Your task to perform on an android device: check google app version Image 0: 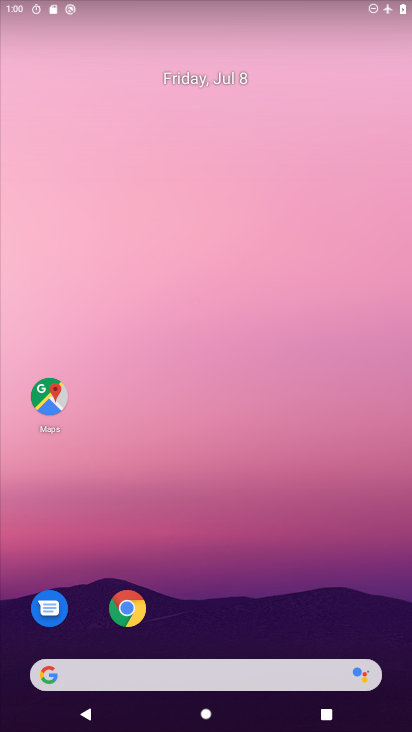
Step 0: drag from (236, 722) to (231, 11)
Your task to perform on an android device: check google app version Image 1: 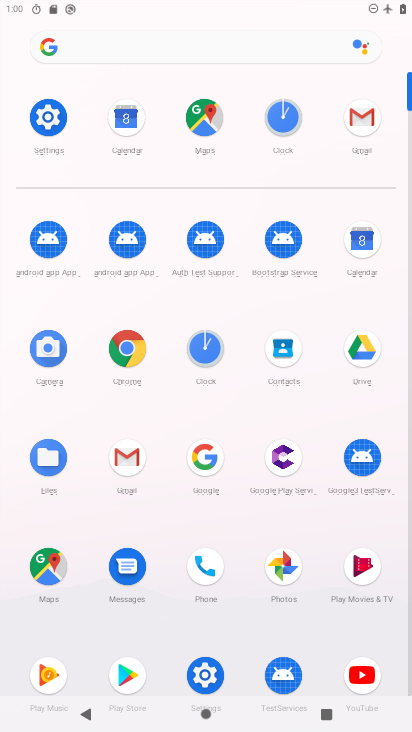
Step 1: click (205, 456)
Your task to perform on an android device: check google app version Image 2: 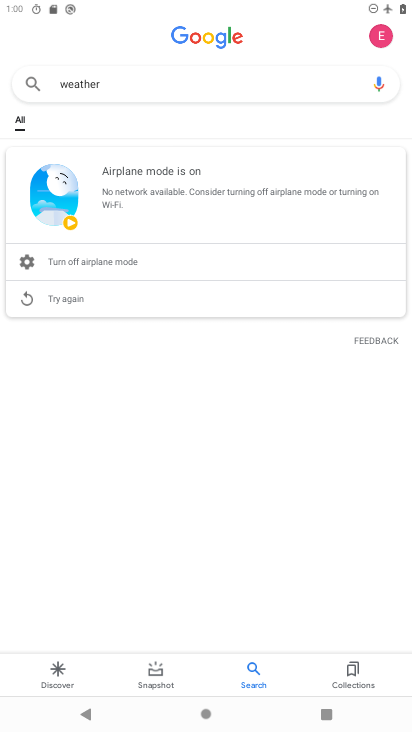
Step 2: click (379, 37)
Your task to perform on an android device: check google app version Image 3: 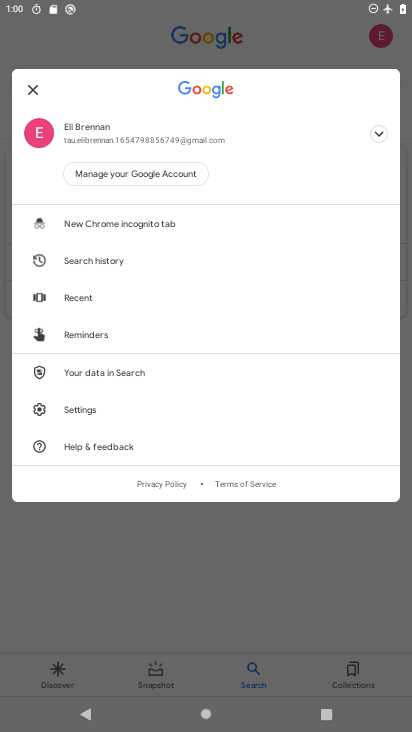
Step 3: click (81, 405)
Your task to perform on an android device: check google app version Image 4: 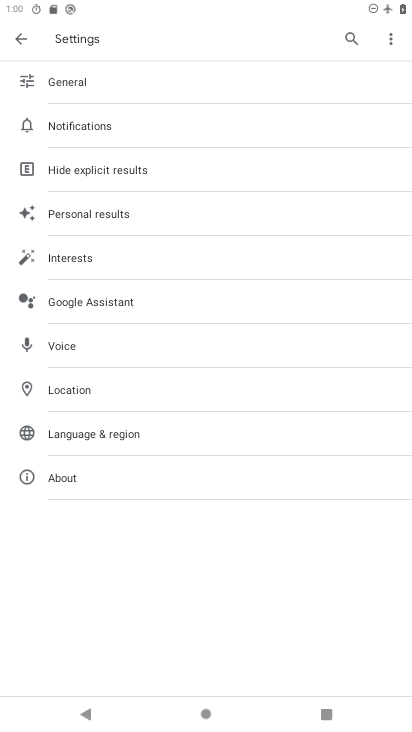
Step 4: click (74, 480)
Your task to perform on an android device: check google app version Image 5: 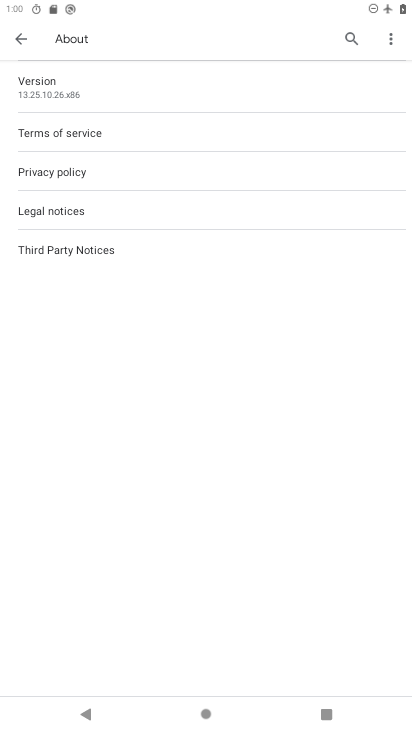
Step 5: task complete